Your task to perform on an android device: turn off translation in the chrome app Image 0: 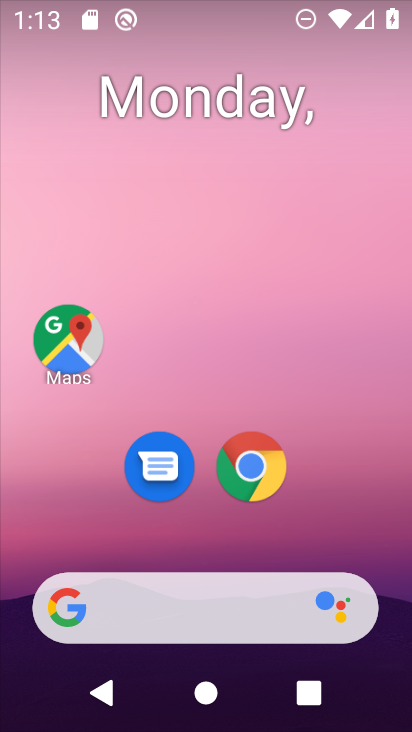
Step 0: drag from (208, 557) to (216, 7)
Your task to perform on an android device: turn off translation in the chrome app Image 1: 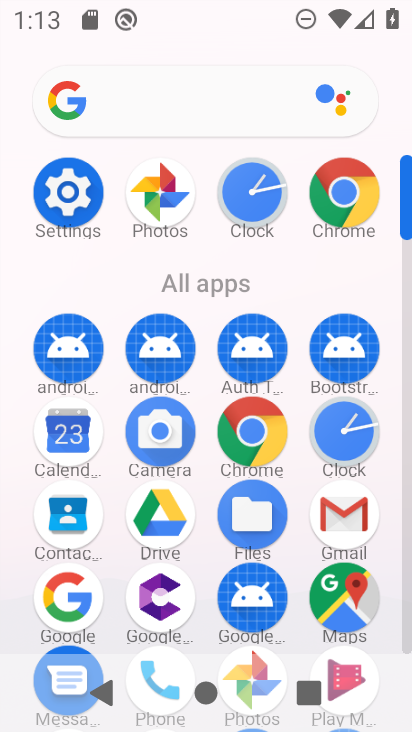
Step 1: click (257, 430)
Your task to perform on an android device: turn off translation in the chrome app Image 2: 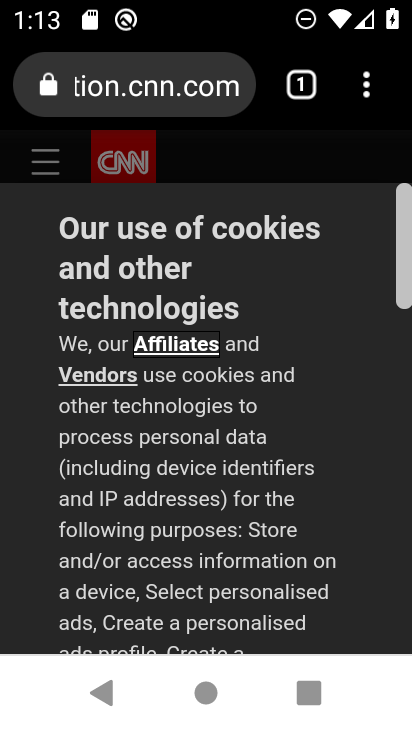
Step 2: click (365, 87)
Your task to perform on an android device: turn off translation in the chrome app Image 3: 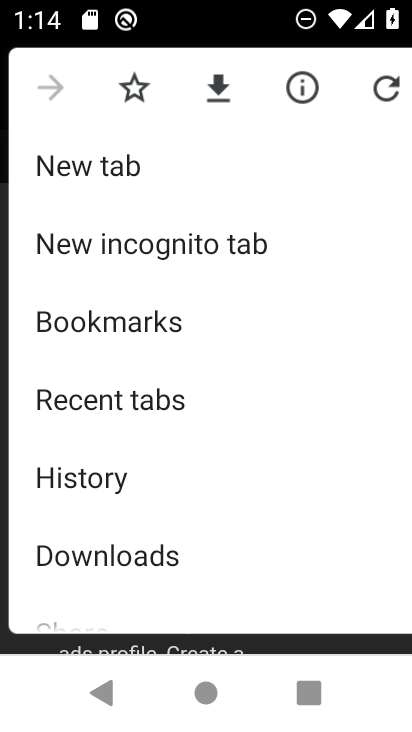
Step 3: drag from (158, 539) to (241, 100)
Your task to perform on an android device: turn off translation in the chrome app Image 4: 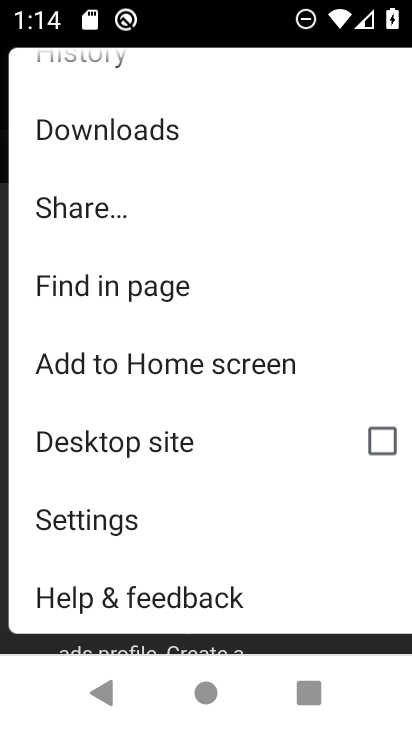
Step 4: click (120, 519)
Your task to perform on an android device: turn off translation in the chrome app Image 5: 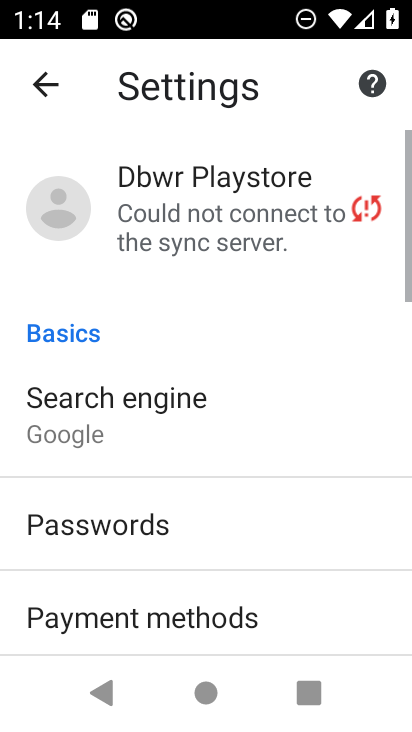
Step 5: drag from (201, 601) to (250, 28)
Your task to perform on an android device: turn off translation in the chrome app Image 6: 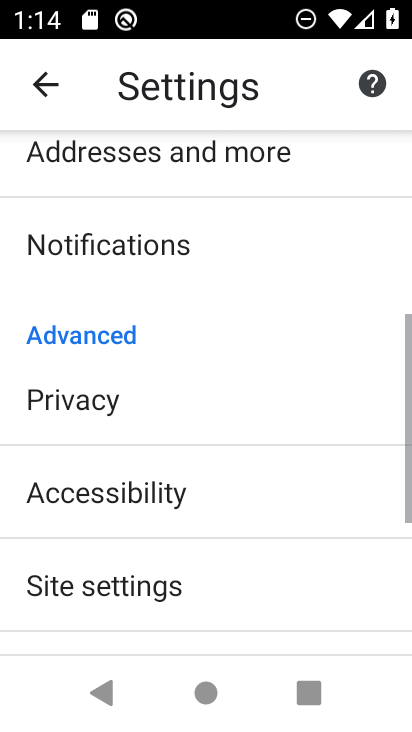
Step 6: drag from (178, 571) to (222, 273)
Your task to perform on an android device: turn off translation in the chrome app Image 7: 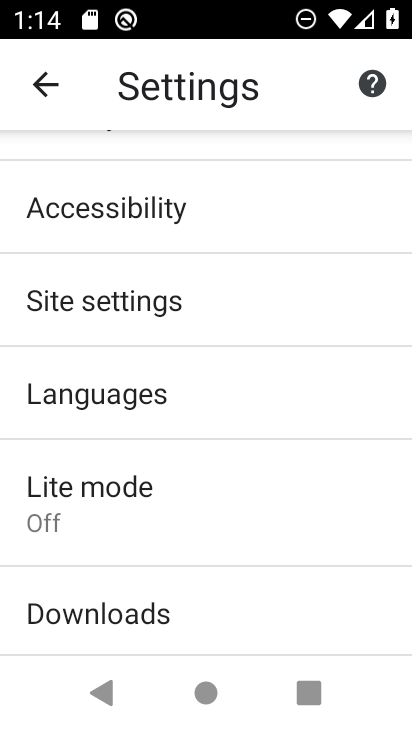
Step 7: click (133, 397)
Your task to perform on an android device: turn off translation in the chrome app Image 8: 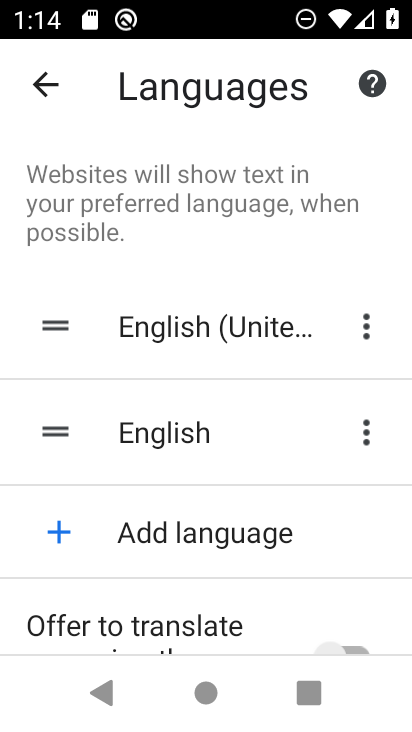
Step 8: task complete